Your task to perform on an android device: Go to wifi settings Image 0: 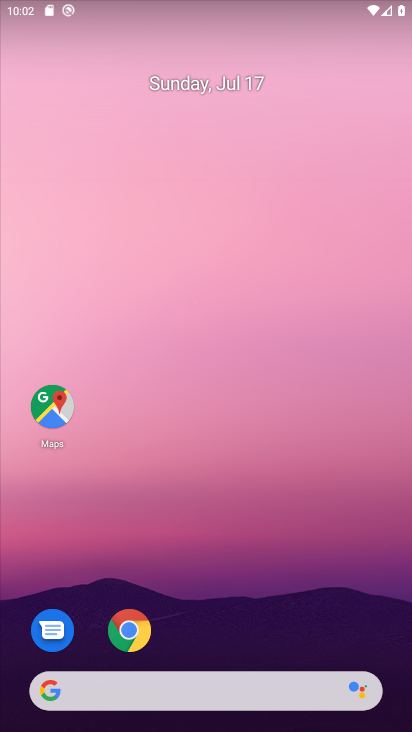
Step 0: drag from (172, 637) to (226, 4)
Your task to perform on an android device: Go to wifi settings Image 1: 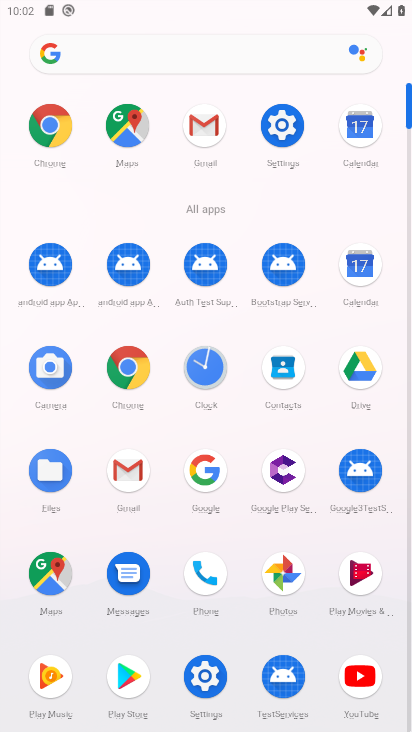
Step 1: click (204, 686)
Your task to perform on an android device: Go to wifi settings Image 2: 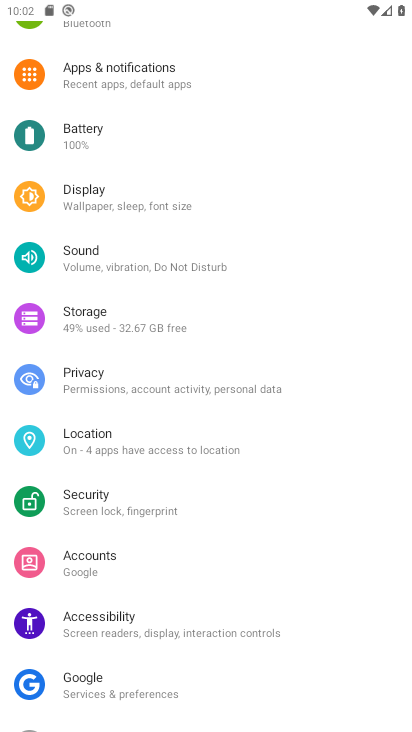
Step 2: drag from (123, 114) to (147, 516)
Your task to perform on an android device: Go to wifi settings Image 3: 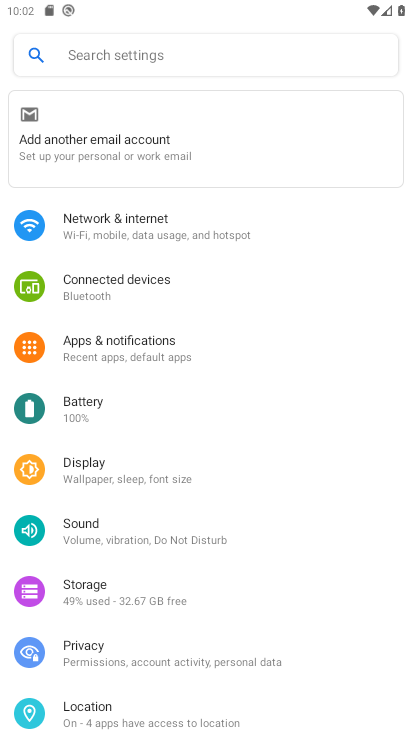
Step 3: click (142, 229)
Your task to perform on an android device: Go to wifi settings Image 4: 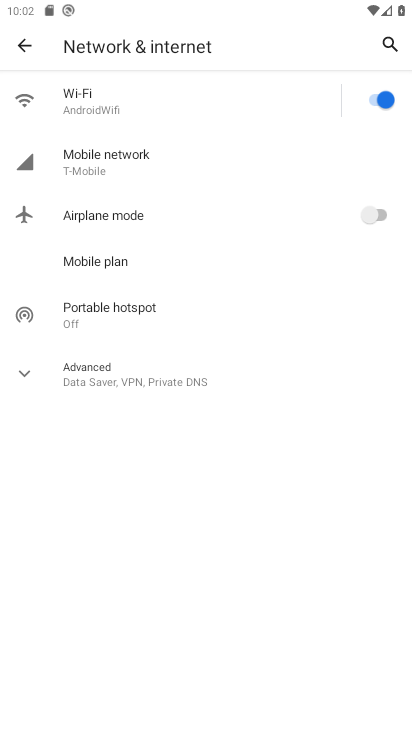
Step 4: click (96, 92)
Your task to perform on an android device: Go to wifi settings Image 5: 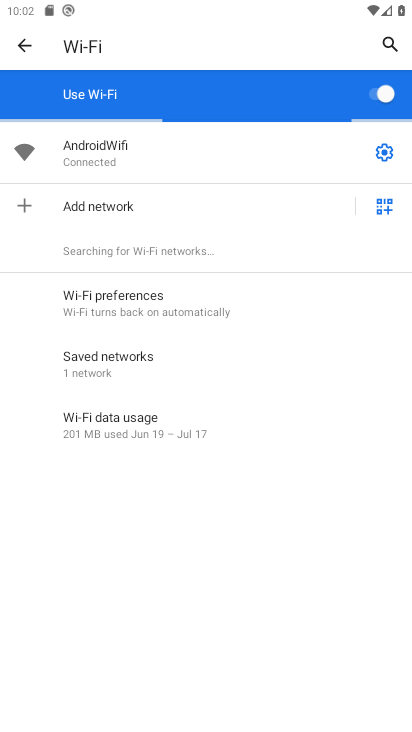
Step 5: task complete